Your task to perform on an android device: Go to Reddit.com Image 0: 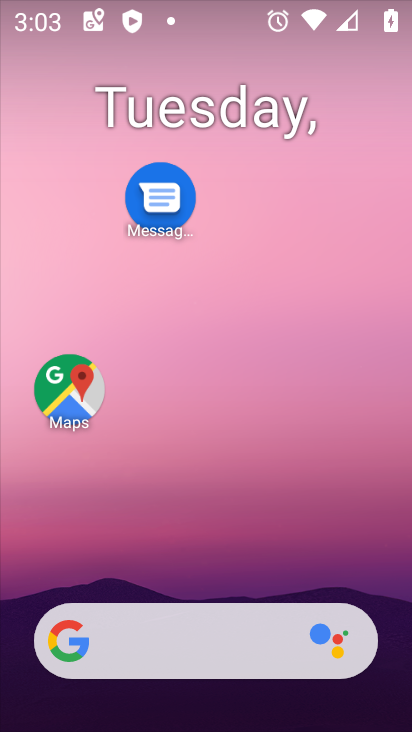
Step 0: drag from (202, 564) to (253, 160)
Your task to perform on an android device: Go to Reddit.com Image 1: 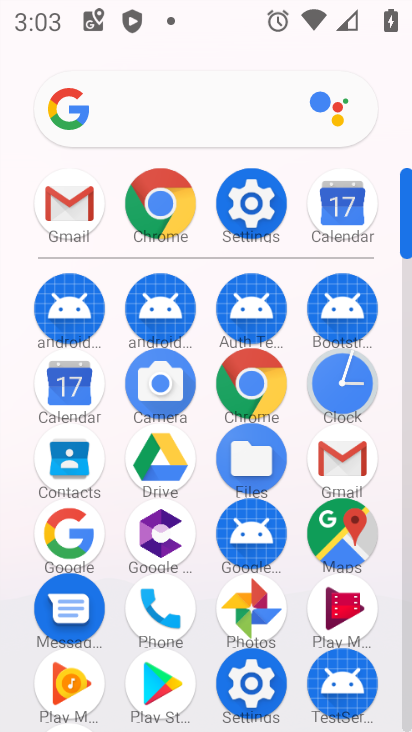
Step 1: click (141, 208)
Your task to perform on an android device: Go to Reddit.com Image 2: 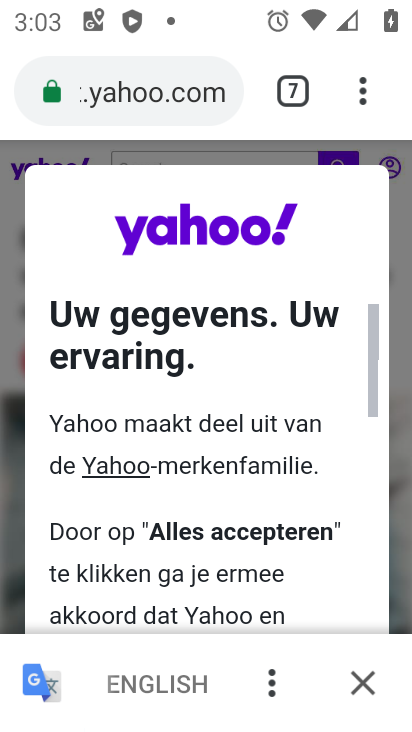
Step 2: click (278, 87)
Your task to perform on an android device: Go to Reddit.com Image 3: 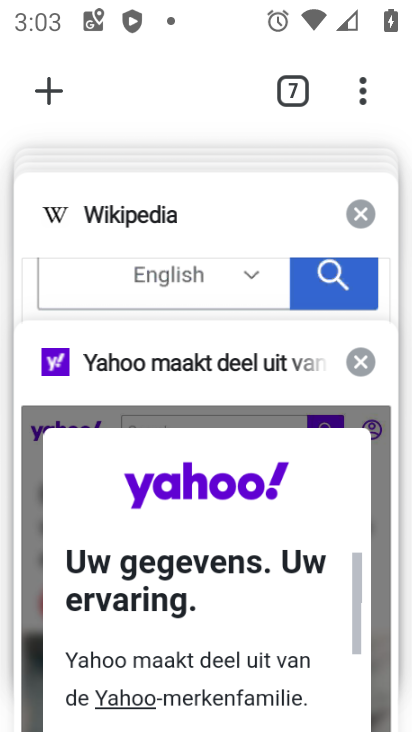
Step 3: drag from (196, 411) to (209, 576)
Your task to perform on an android device: Go to Reddit.com Image 4: 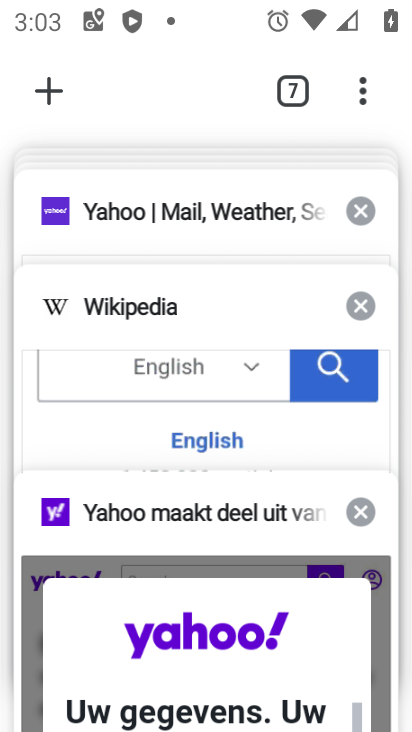
Step 4: click (359, 305)
Your task to perform on an android device: Go to Reddit.com Image 5: 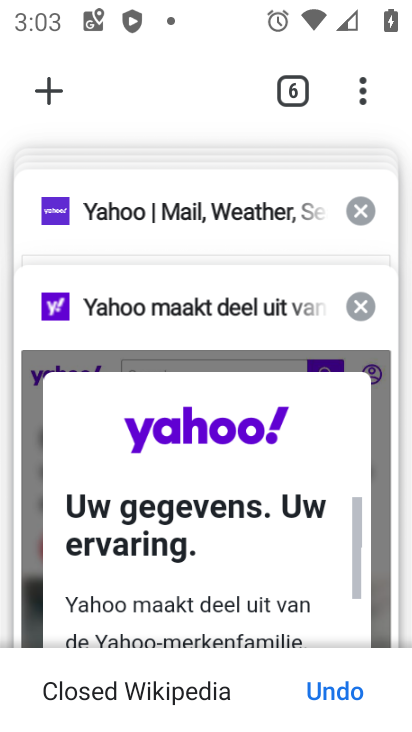
Step 5: click (35, 79)
Your task to perform on an android device: Go to Reddit.com Image 6: 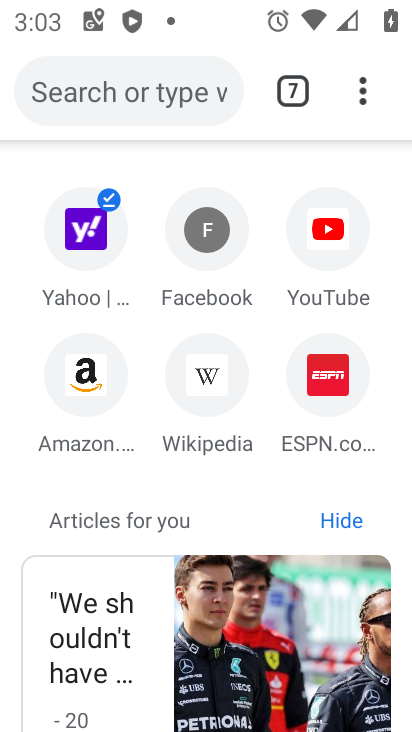
Step 6: click (155, 87)
Your task to perform on an android device: Go to Reddit.com Image 7: 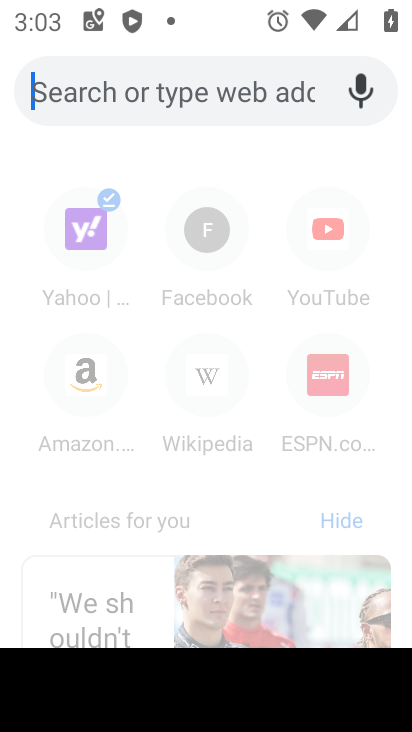
Step 7: type "Reddit.com"
Your task to perform on an android device: Go to Reddit.com Image 8: 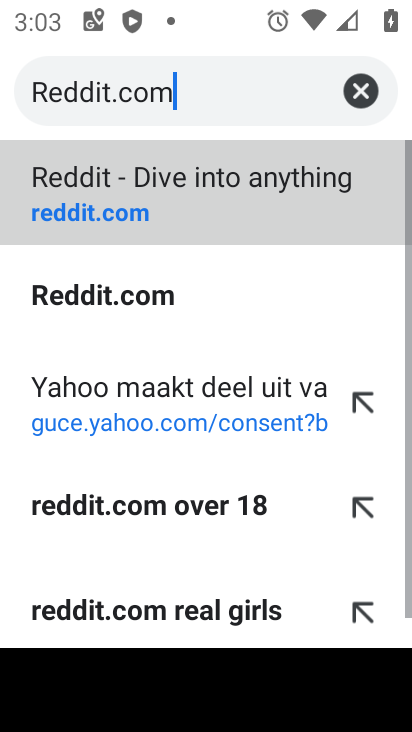
Step 8: click (159, 188)
Your task to perform on an android device: Go to Reddit.com Image 9: 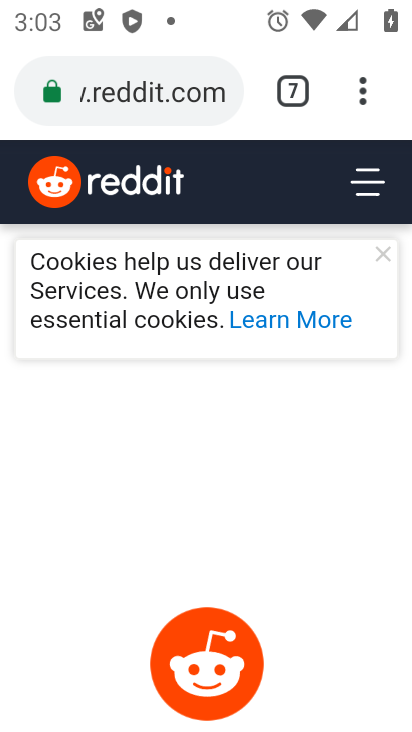
Step 9: task complete